Your task to perform on an android device: How much does a 3 bedroom apartment rent for in New York? Image 0: 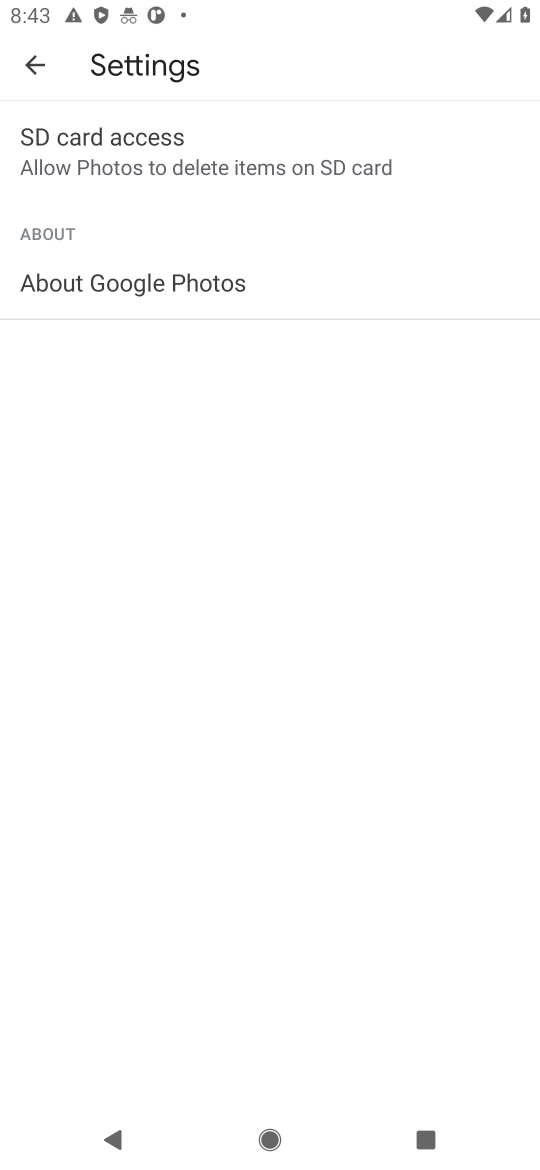
Step 0: press home button
Your task to perform on an android device: How much does a 3 bedroom apartment rent for in New York? Image 1: 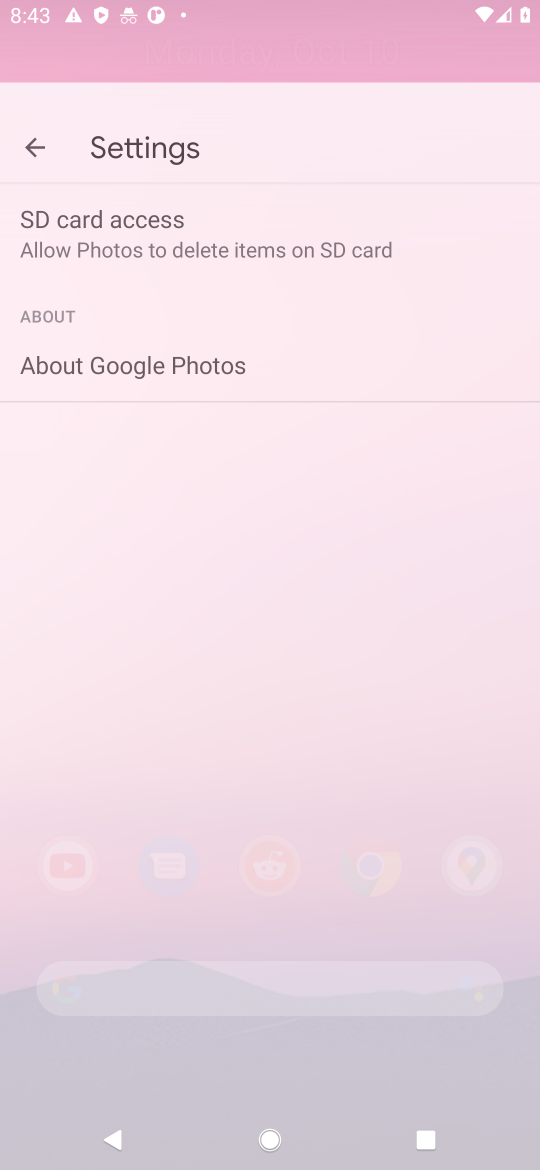
Step 1: press home button
Your task to perform on an android device: How much does a 3 bedroom apartment rent for in New York? Image 2: 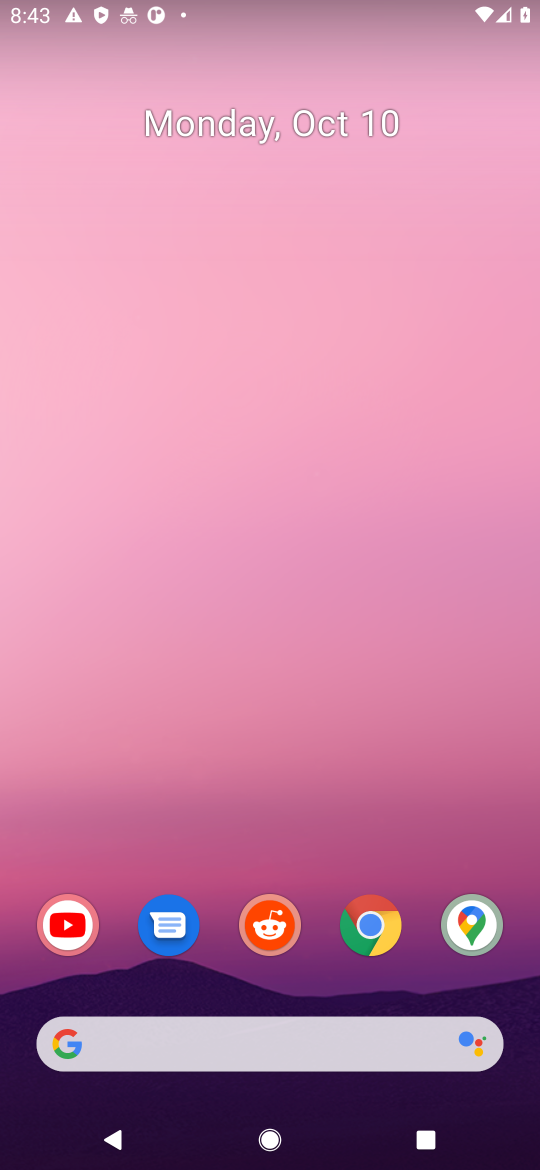
Step 2: drag from (320, 978) to (318, 5)
Your task to perform on an android device: How much does a 3 bedroom apartment rent for in New York? Image 3: 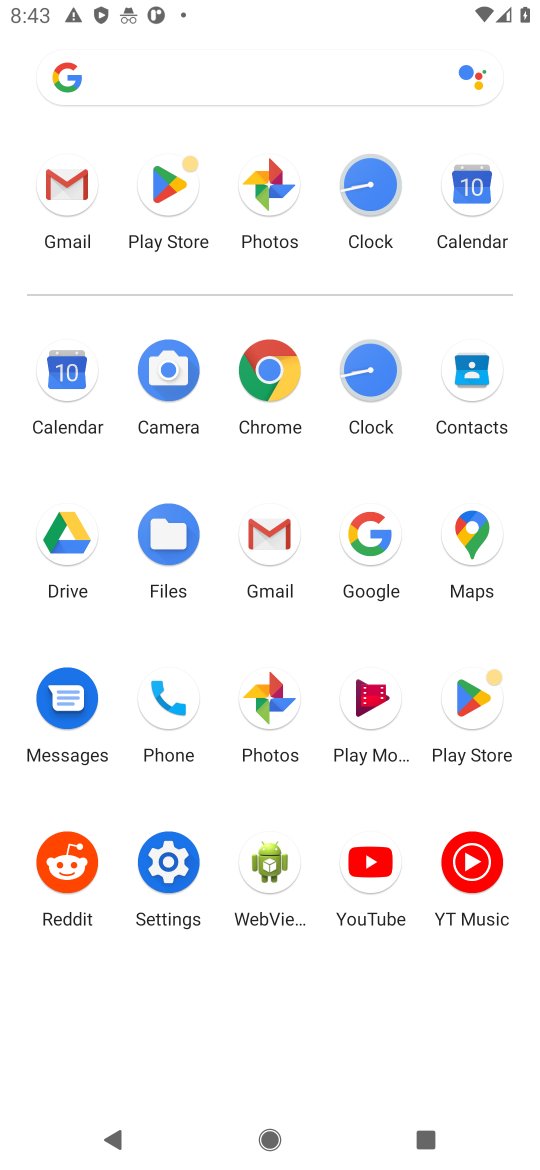
Step 3: click (276, 369)
Your task to perform on an android device: How much does a 3 bedroom apartment rent for in New York? Image 4: 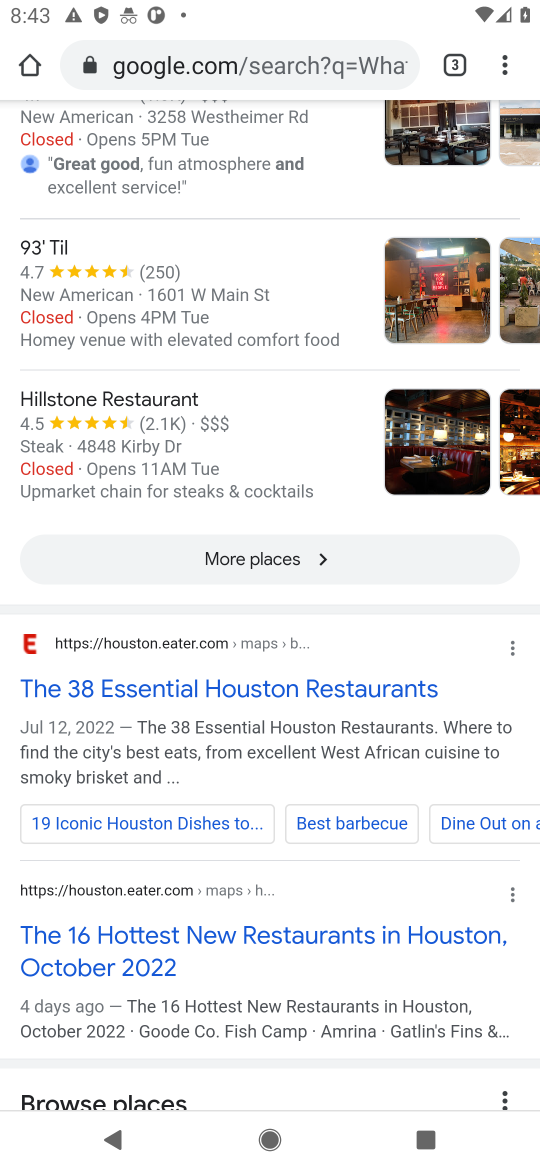
Step 4: click (273, 73)
Your task to perform on an android device: How much does a 3 bedroom apartment rent for in New York? Image 5: 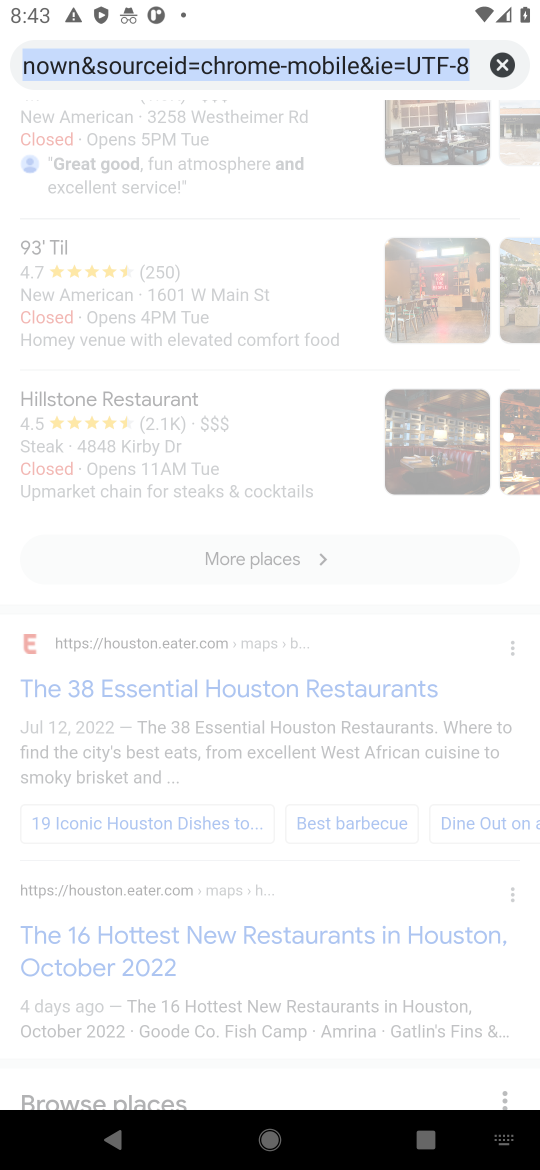
Step 5: type "How much does a 3 bedroom apartment"
Your task to perform on an android device: How much does a 3 bedroom apartment rent for in New York? Image 6: 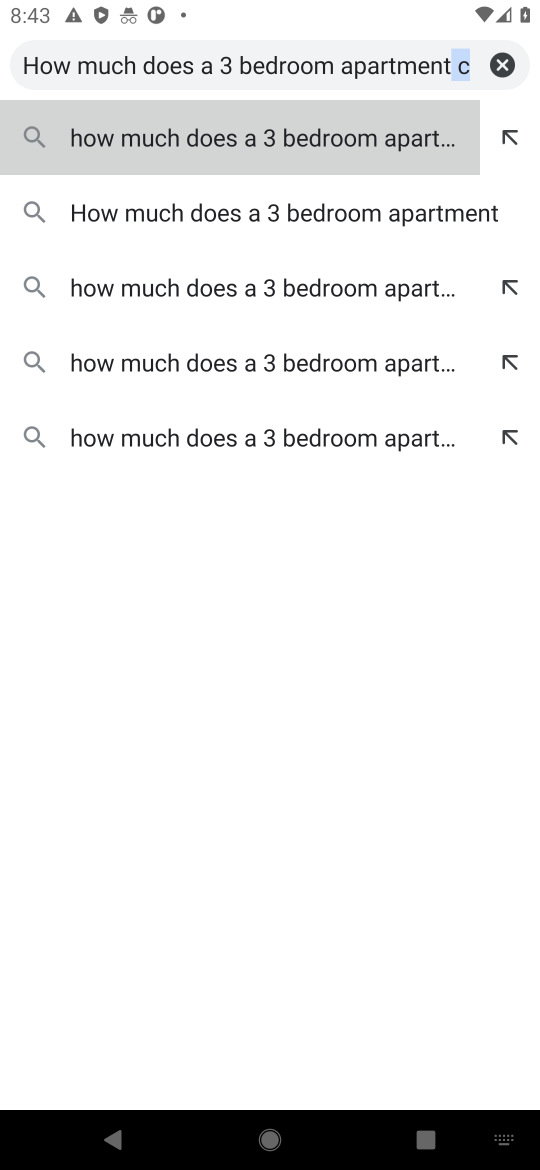
Step 6: type " rent for in New York?"
Your task to perform on an android device: How much does a 3 bedroom apartment rent for in New York? Image 7: 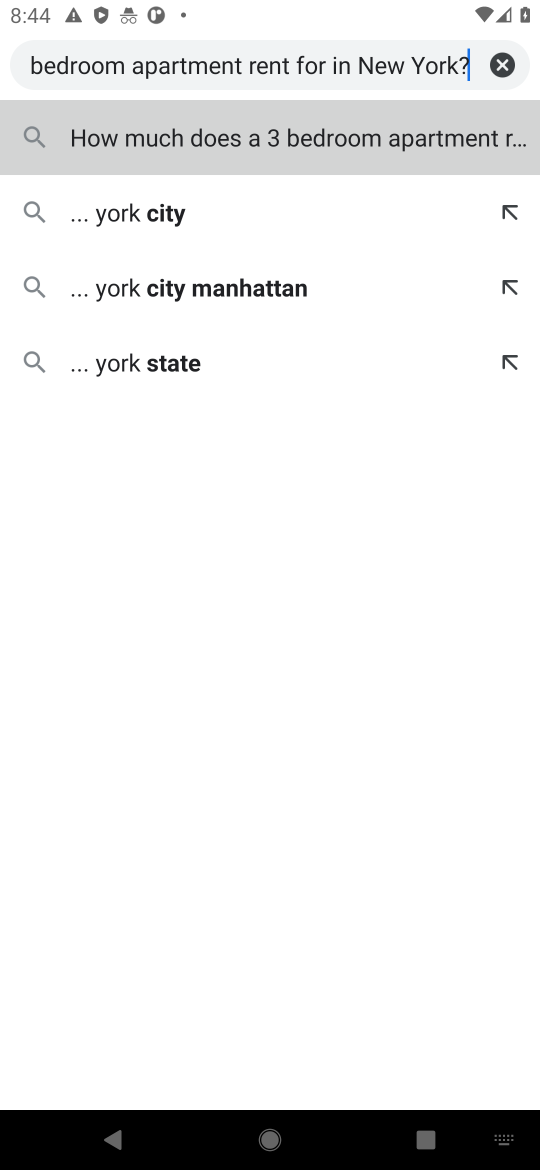
Step 7: press enter
Your task to perform on an android device: How much does a 3 bedroom apartment rent for in New York? Image 8: 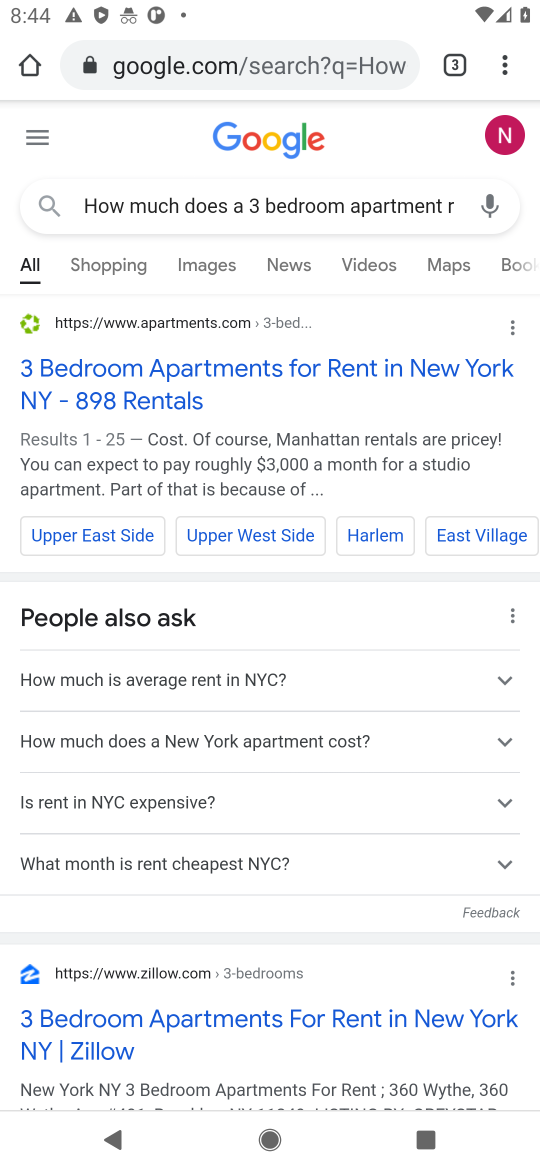
Step 8: click (96, 364)
Your task to perform on an android device: How much does a 3 bedroom apartment rent for in New York? Image 9: 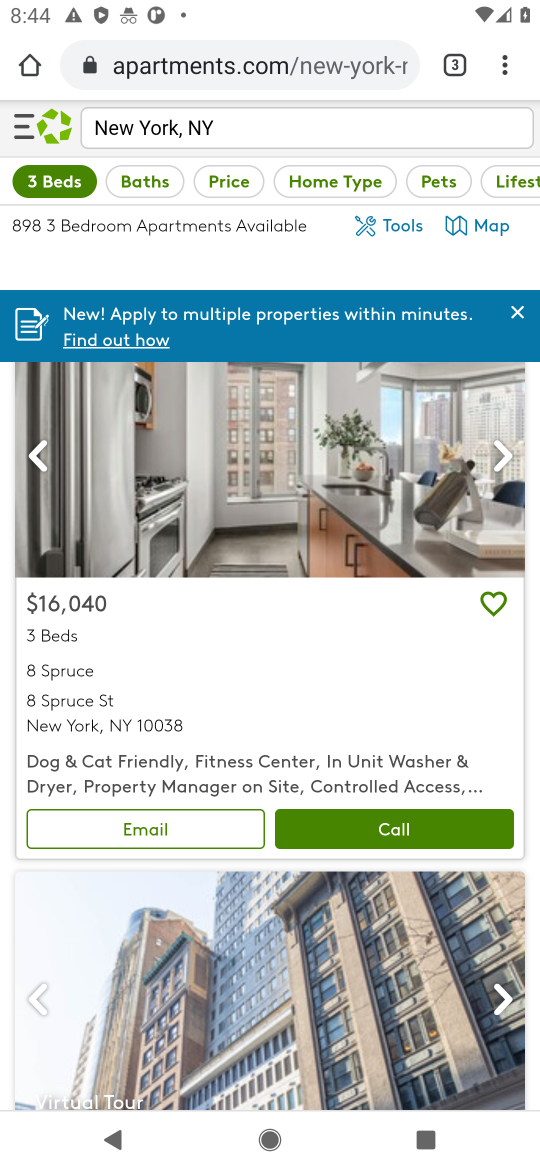
Step 9: task complete